Your task to perform on an android device: turn off sleep mode Image 0: 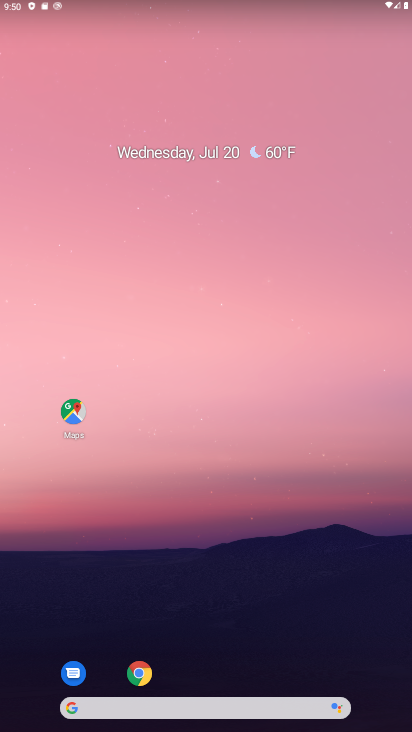
Step 0: drag from (229, 681) to (217, 5)
Your task to perform on an android device: turn off sleep mode Image 1: 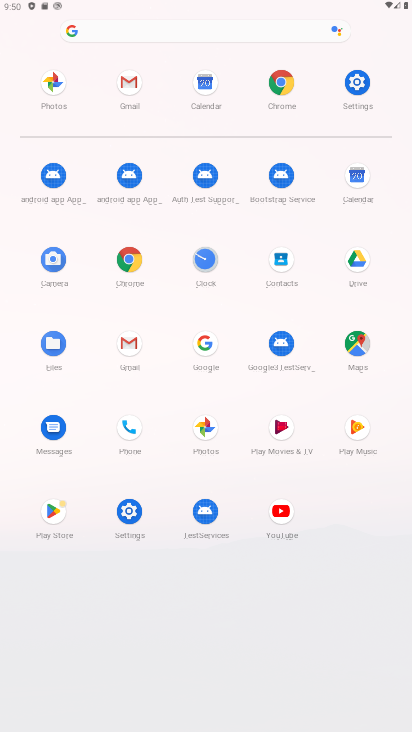
Step 1: click (352, 92)
Your task to perform on an android device: turn off sleep mode Image 2: 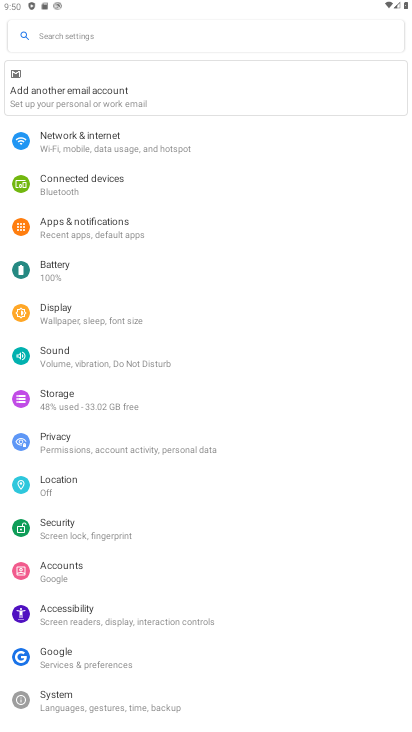
Step 2: click (156, 40)
Your task to perform on an android device: turn off sleep mode Image 3: 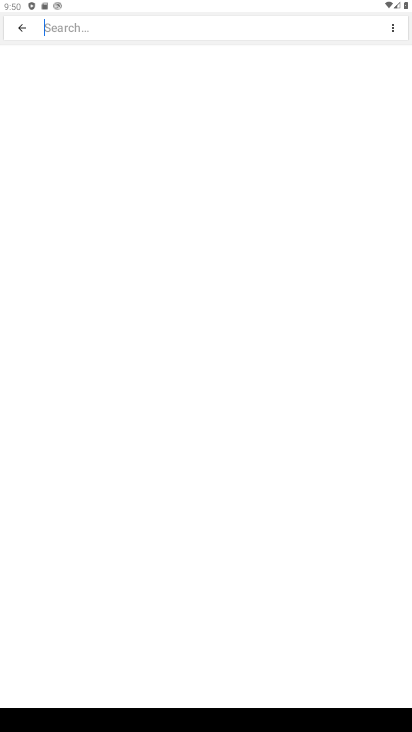
Step 3: type "sleep mode"
Your task to perform on an android device: turn off sleep mode Image 4: 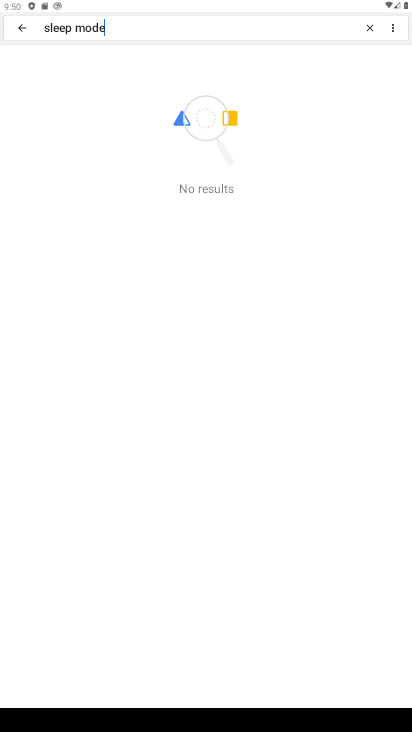
Step 4: click (123, 394)
Your task to perform on an android device: turn off sleep mode Image 5: 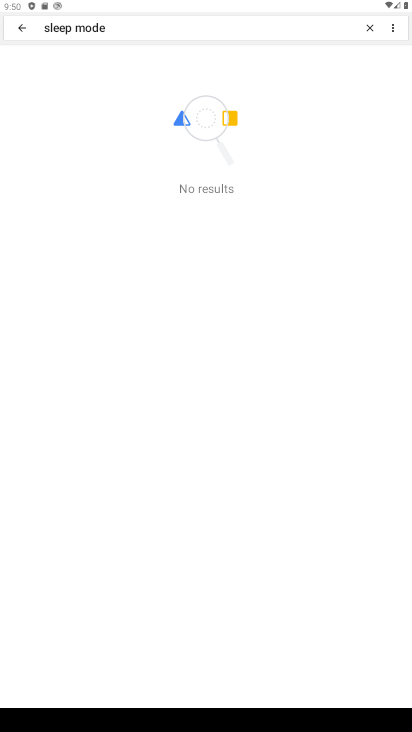
Step 5: task complete